Your task to perform on an android device: Open the phone app and click the voicemail tab. Image 0: 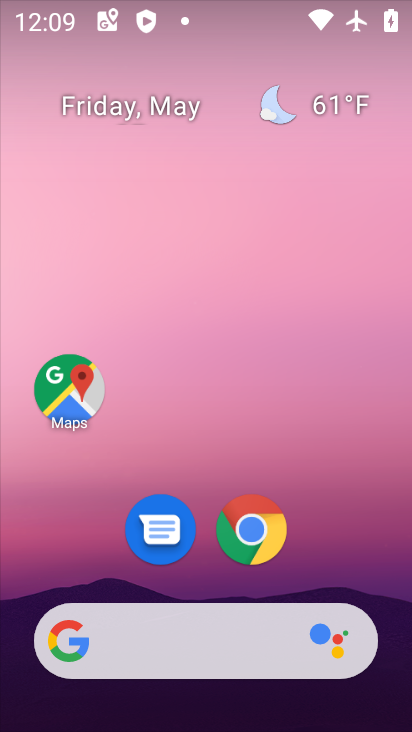
Step 0: drag from (356, 526) to (367, 2)
Your task to perform on an android device: Open the phone app and click the voicemail tab. Image 1: 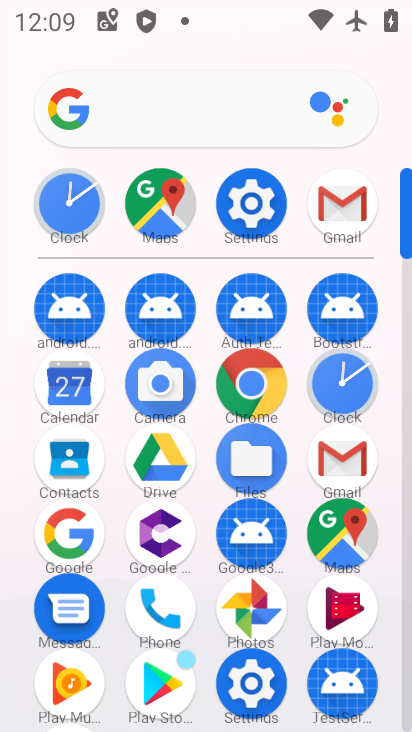
Step 1: click (410, 692)
Your task to perform on an android device: Open the phone app and click the voicemail tab. Image 2: 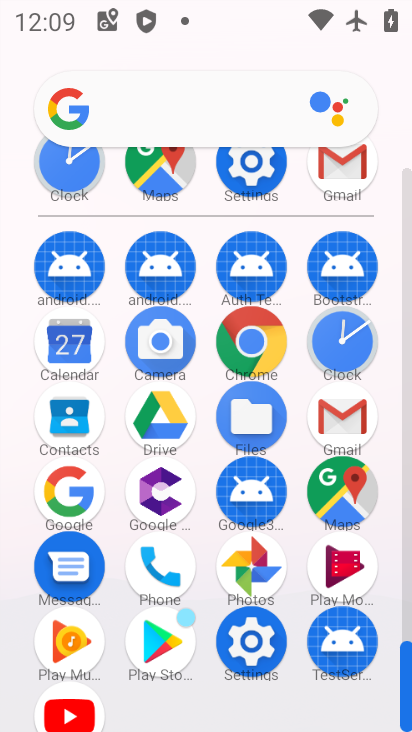
Step 2: click (147, 561)
Your task to perform on an android device: Open the phone app and click the voicemail tab. Image 3: 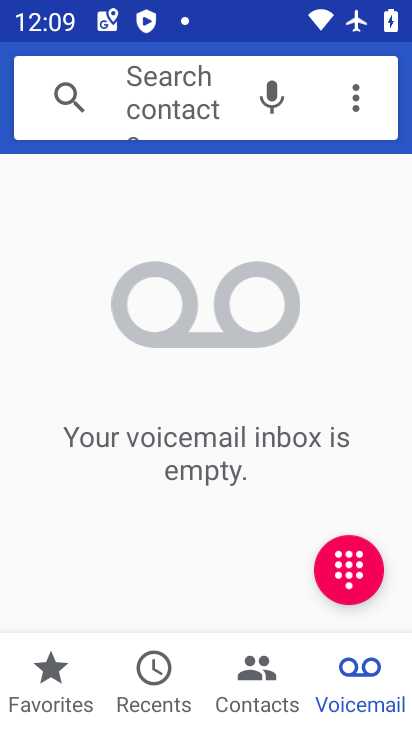
Step 3: task complete